Your task to perform on an android device: install app "Nova Launcher" Image 0: 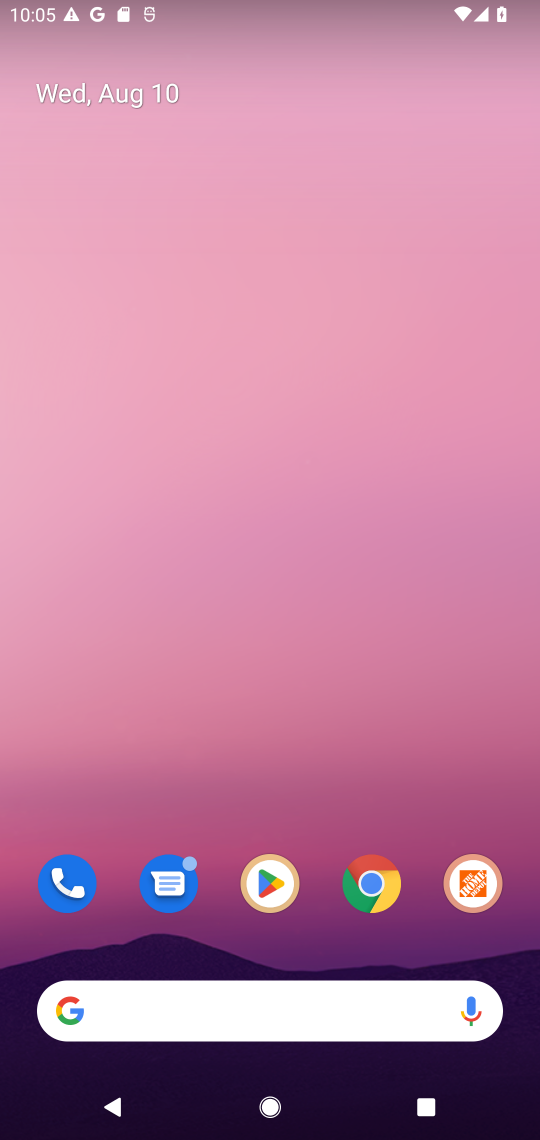
Step 0: press home button
Your task to perform on an android device: install app "Nova Launcher" Image 1: 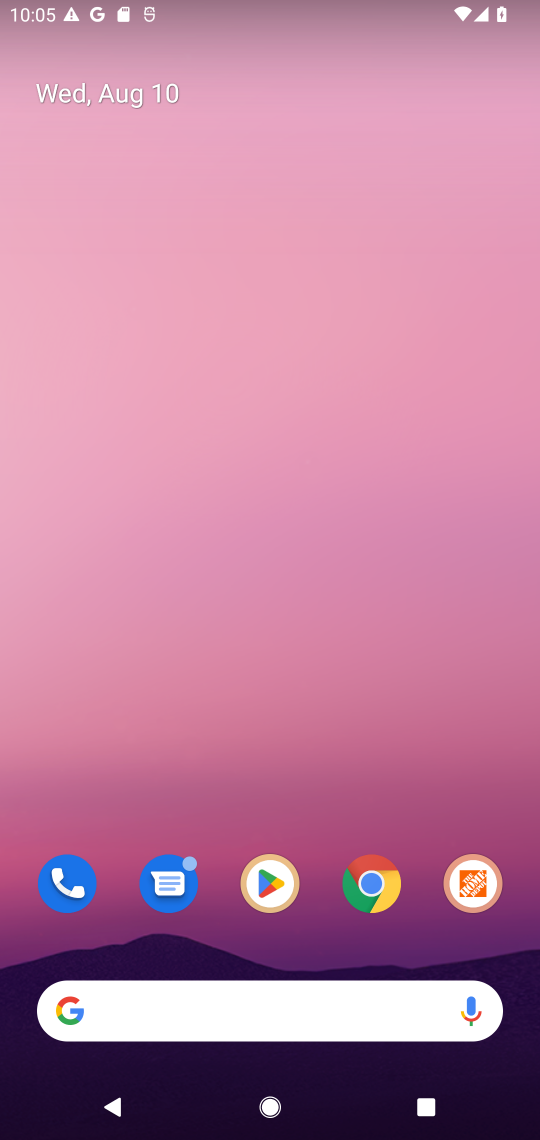
Step 1: drag from (444, 680) to (453, 47)
Your task to perform on an android device: install app "Nova Launcher" Image 2: 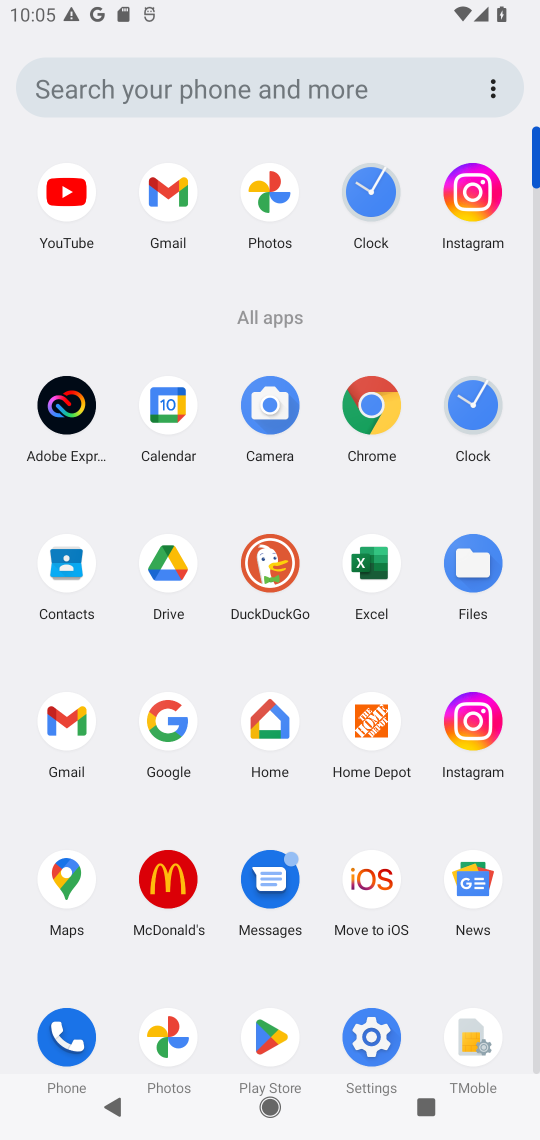
Step 2: click (266, 1032)
Your task to perform on an android device: install app "Nova Launcher" Image 3: 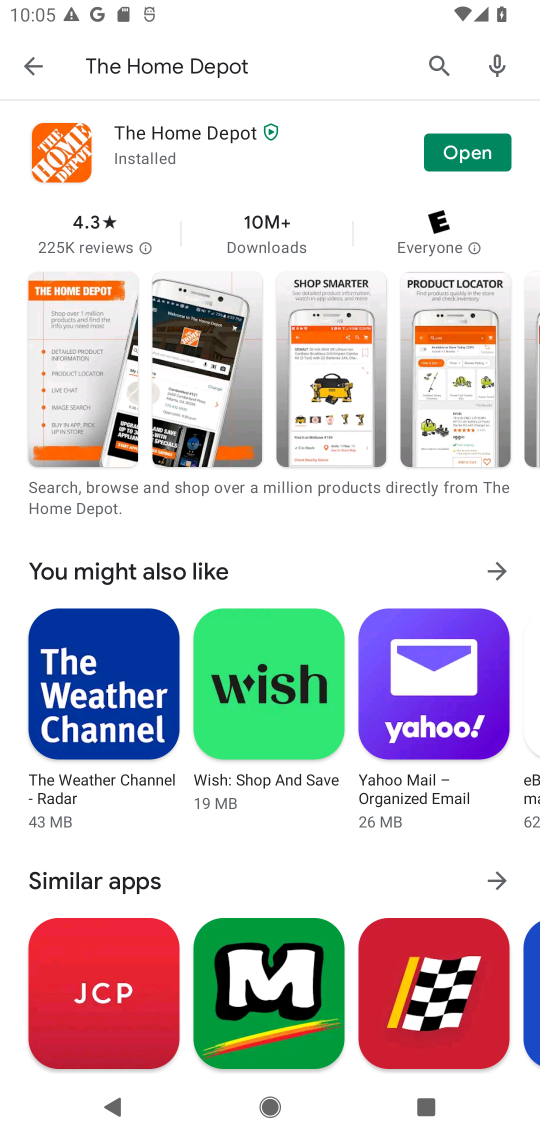
Step 3: click (433, 62)
Your task to perform on an android device: install app "Nova Launcher" Image 4: 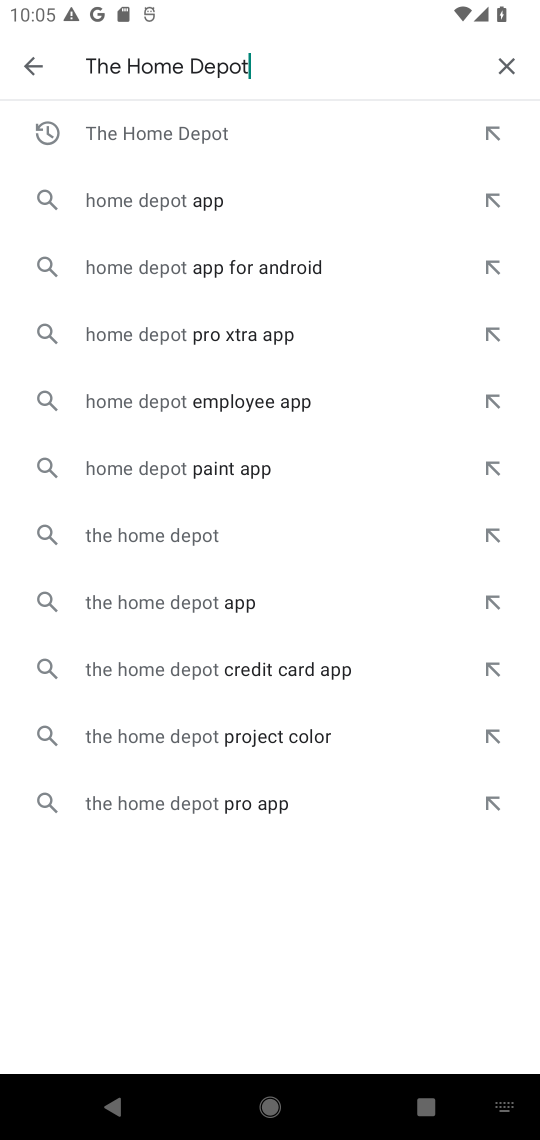
Step 4: click (503, 65)
Your task to perform on an android device: install app "Nova Launcher" Image 5: 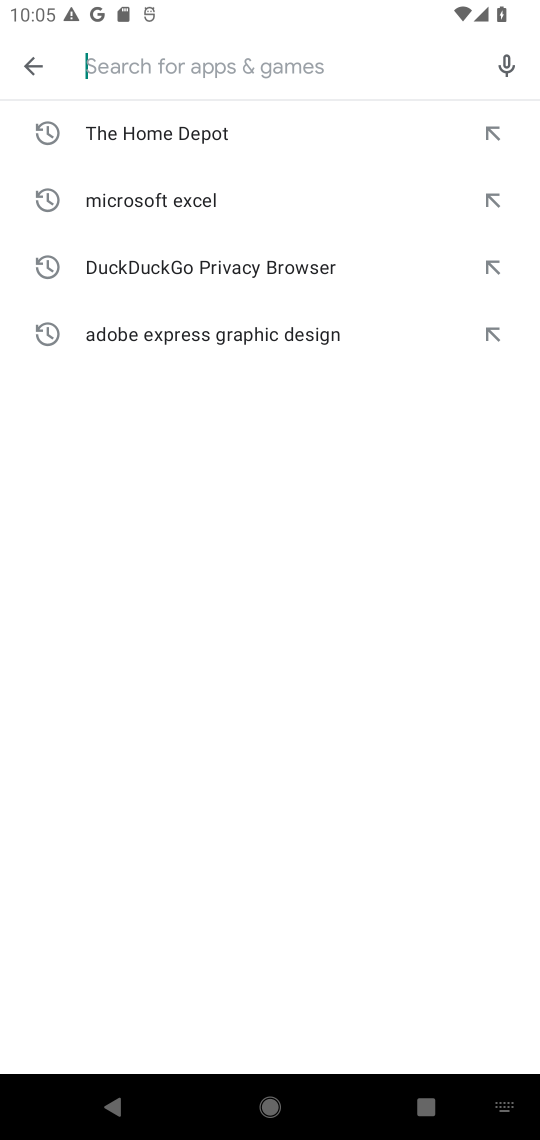
Step 5: type "nova launcher"
Your task to perform on an android device: install app "Nova Launcher" Image 6: 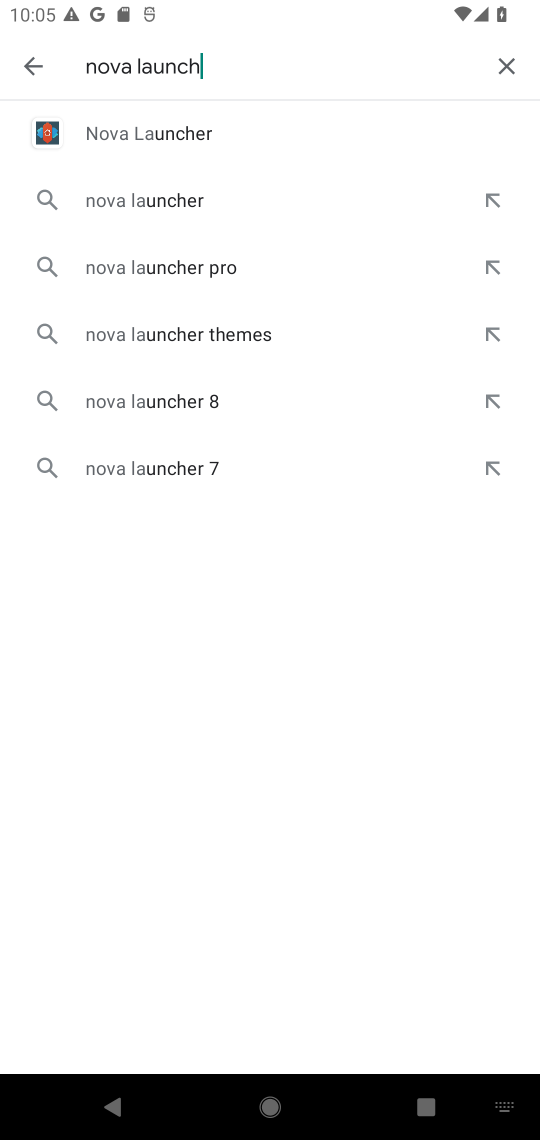
Step 6: press enter
Your task to perform on an android device: install app "Nova Launcher" Image 7: 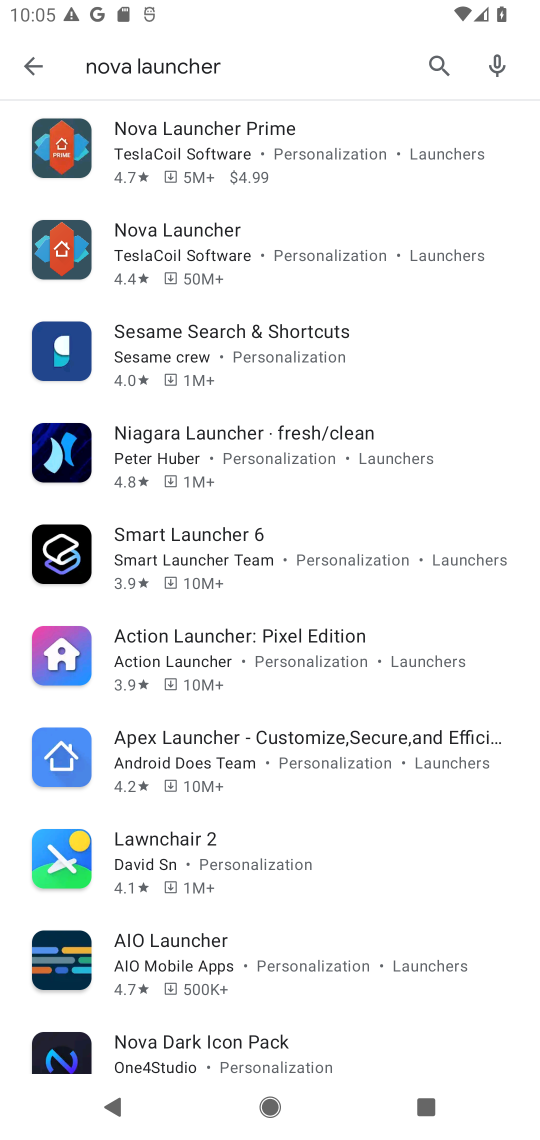
Step 7: task complete